Your task to perform on an android device: install app "Truecaller" Image 0: 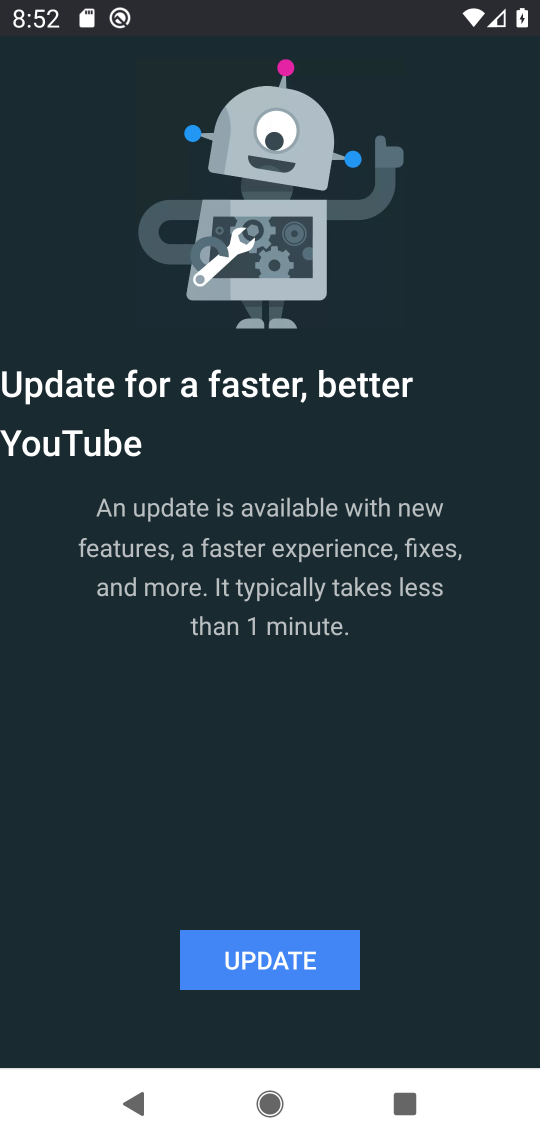
Step 0: press home button
Your task to perform on an android device: install app "Truecaller" Image 1: 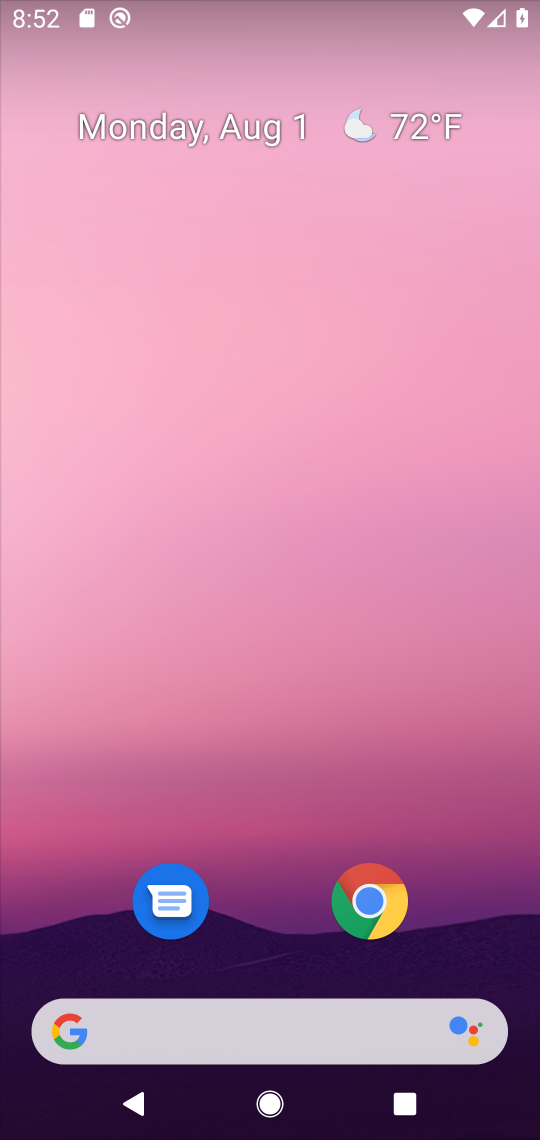
Step 1: drag from (248, 958) to (168, 84)
Your task to perform on an android device: install app "Truecaller" Image 2: 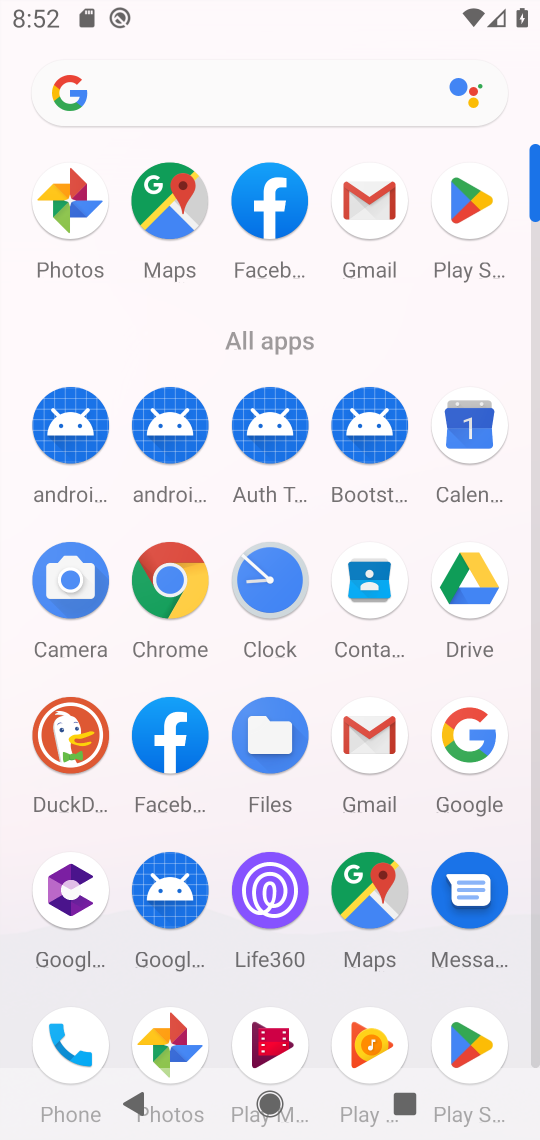
Step 2: click (438, 216)
Your task to perform on an android device: install app "Truecaller" Image 3: 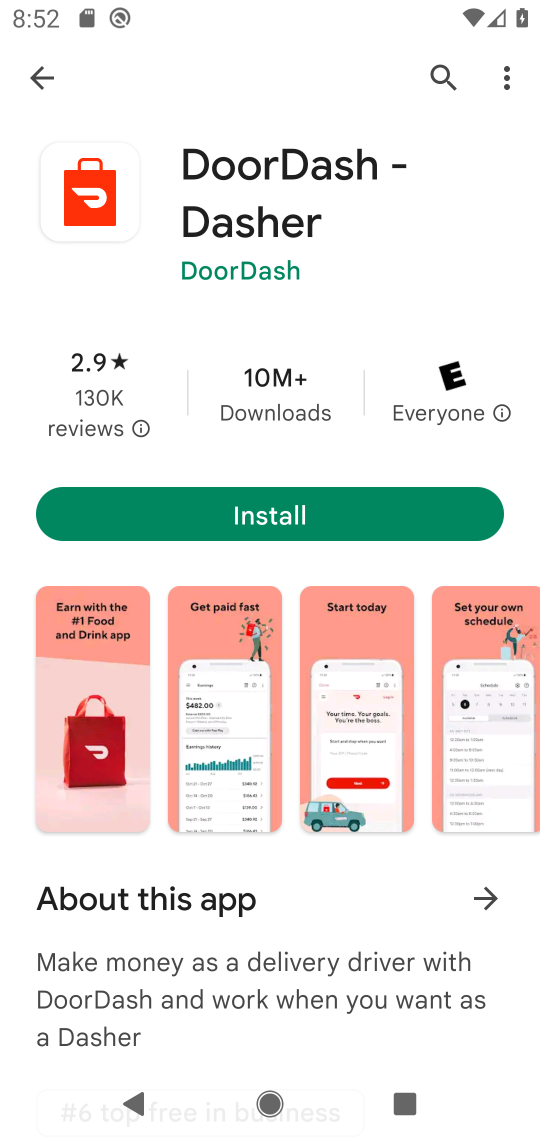
Step 3: click (439, 82)
Your task to perform on an android device: install app "Truecaller" Image 4: 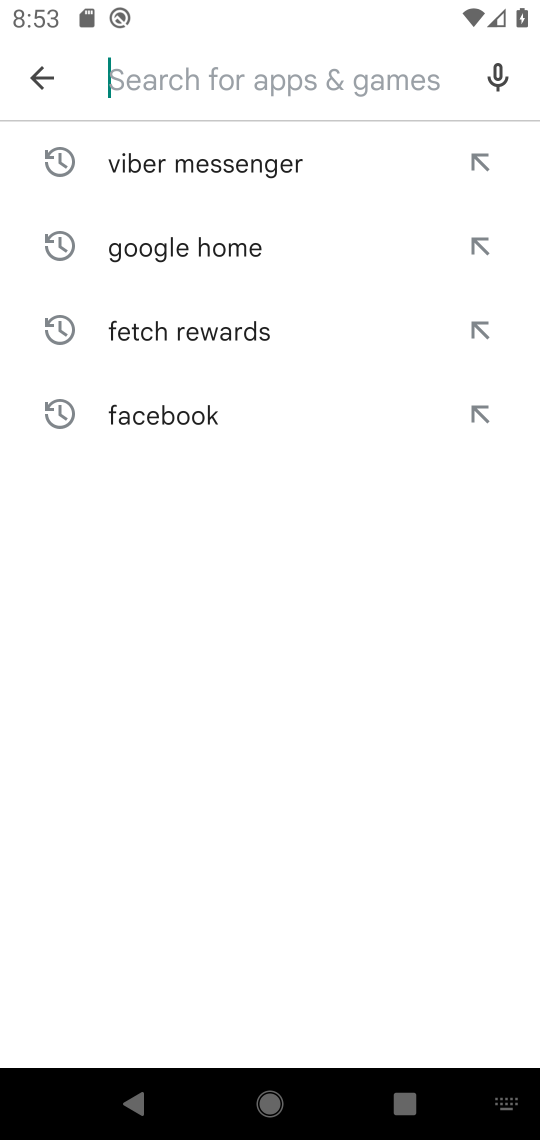
Step 4: type "truecaller"
Your task to perform on an android device: install app "Truecaller" Image 5: 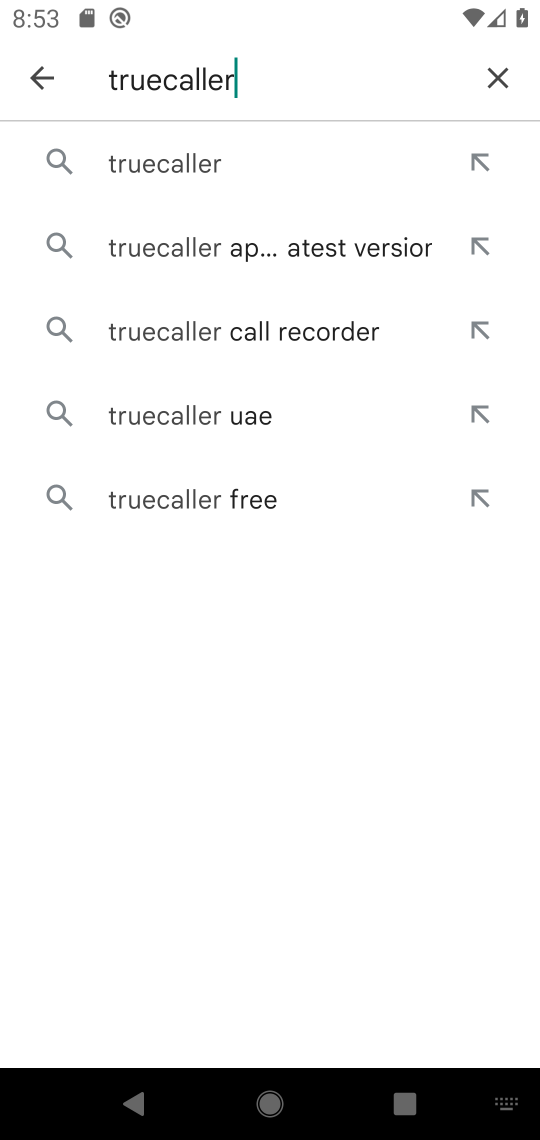
Step 5: click (152, 160)
Your task to perform on an android device: install app "Truecaller" Image 6: 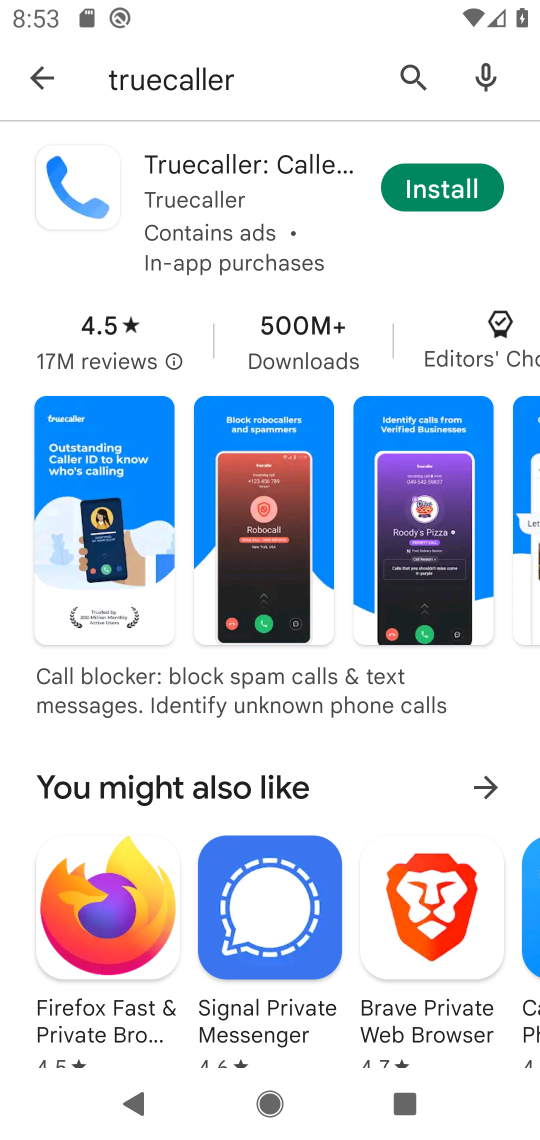
Step 6: click (182, 166)
Your task to perform on an android device: install app "Truecaller" Image 7: 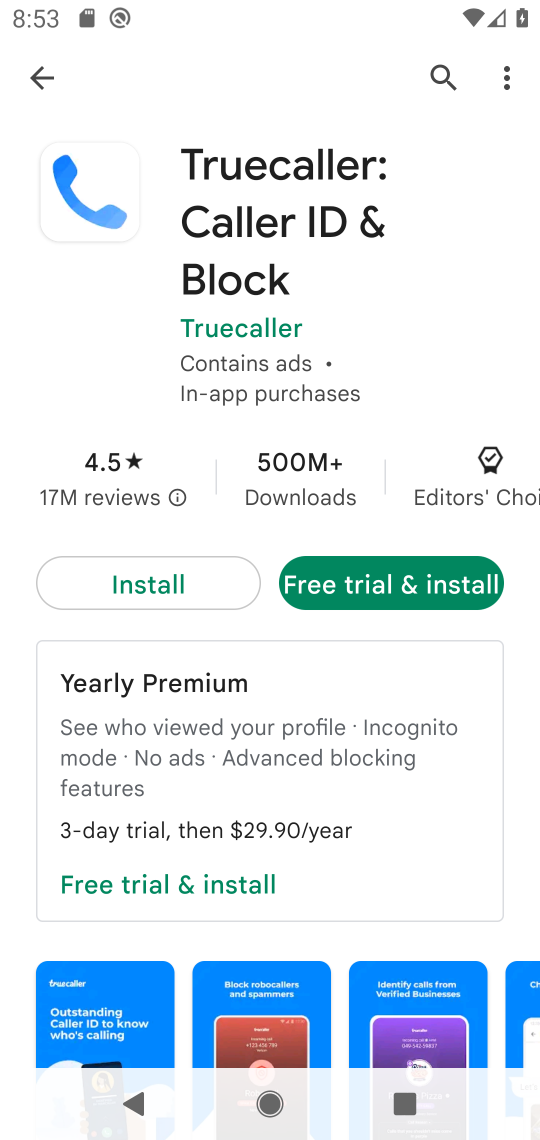
Step 7: click (171, 595)
Your task to perform on an android device: install app "Truecaller" Image 8: 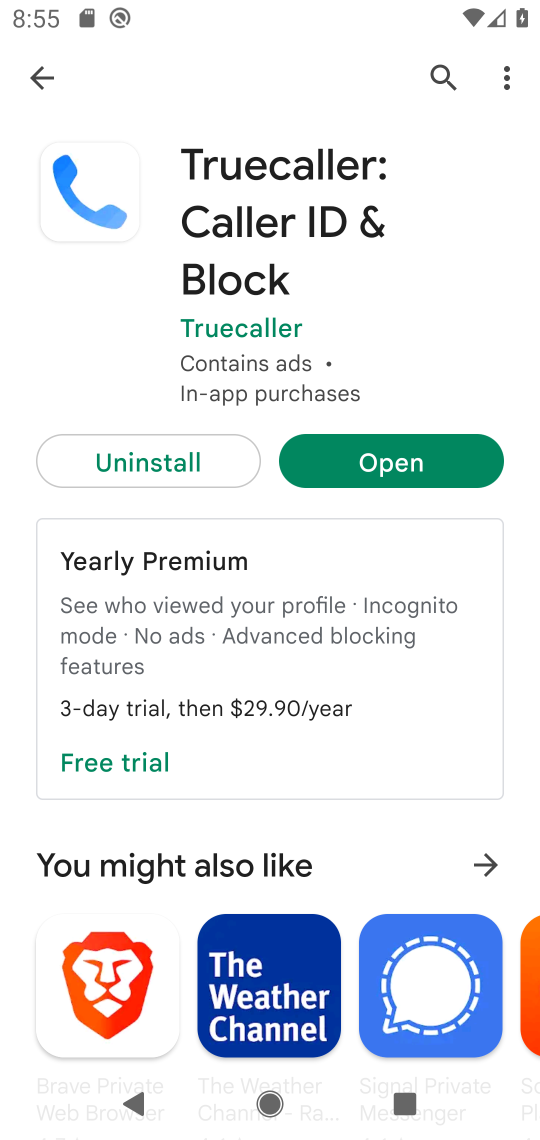
Step 8: task complete